Your task to perform on an android device: turn on notifications settings in the gmail app Image 0: 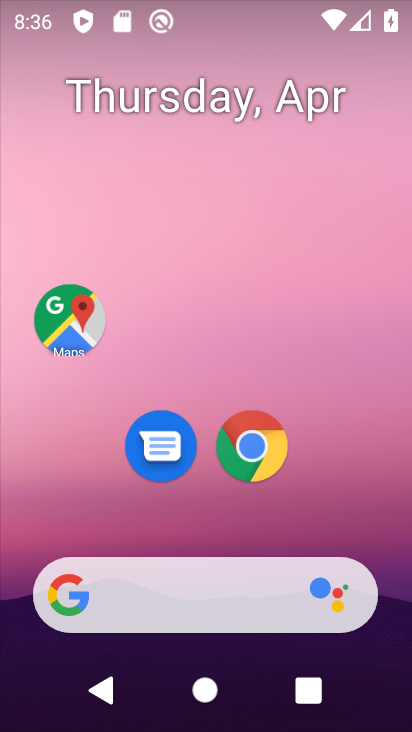
Step 0: drag from (359, 516) to (352, 111)
Your task to perform on an android device: turn on notifications settings in the gmail app Image 1: 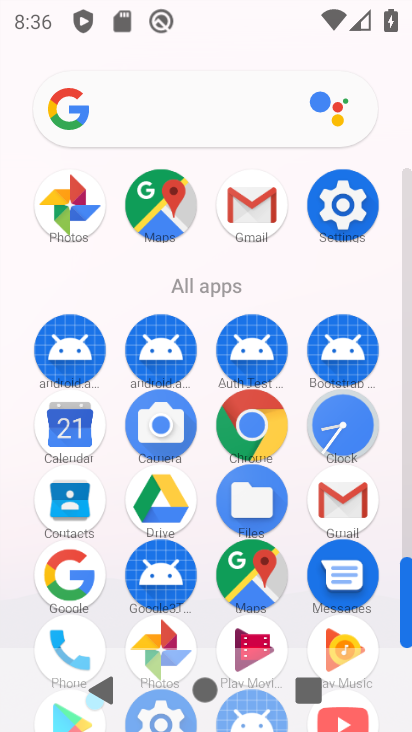
Step 1: click (347, 491)
Your task to perform on an android device: turn on notifications settings in the gmail app Image 2: 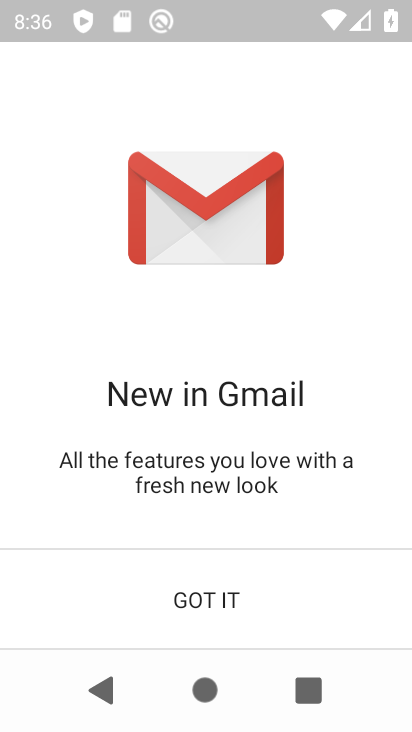
Step 2: click (326, 604)
Your task to perform on an android device: turn on notifications settings in the gmail app Image 3: 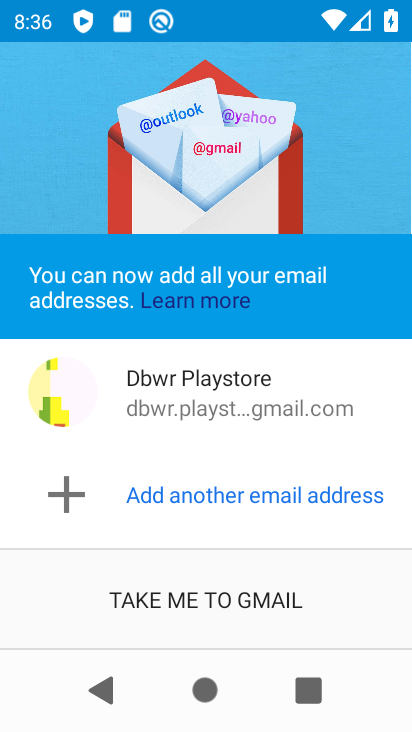
Step 3: click (326, 604)
Your task to perform on an android device: turn on notifications settings in the gmail app Image 4: 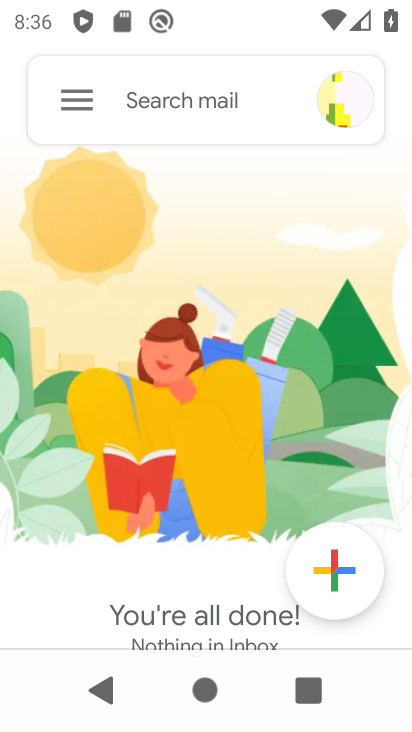
Step 4: click (74, 102)
Your task to perform on an android device: turn on notifications settings in the gmail app Image 5: 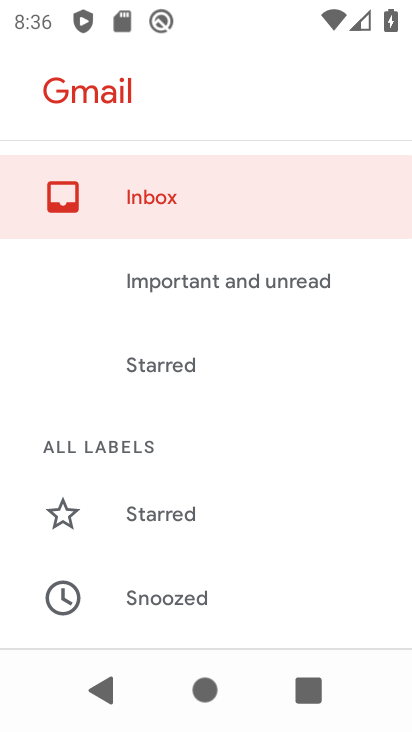
Step 5: drag from (292, 512) to (292, 301)
Your task to perform on an android device: turn on notifications settings in the gmail app Image 6: 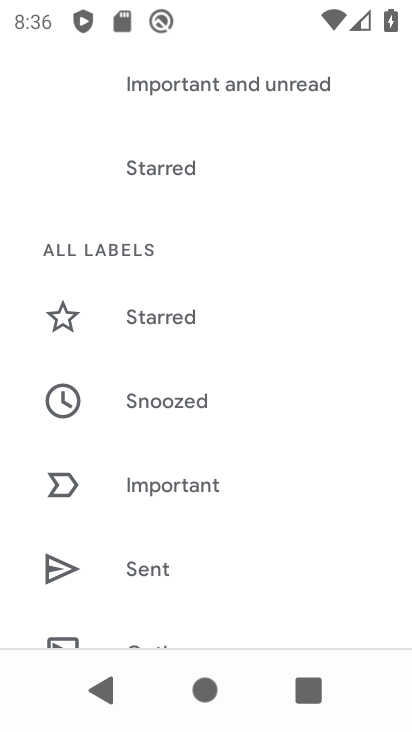
Step 6: drag from (297, 556) to (322, 325)
Your task to perform on an android device: turn on notifications settings in the gmail app Image 7: 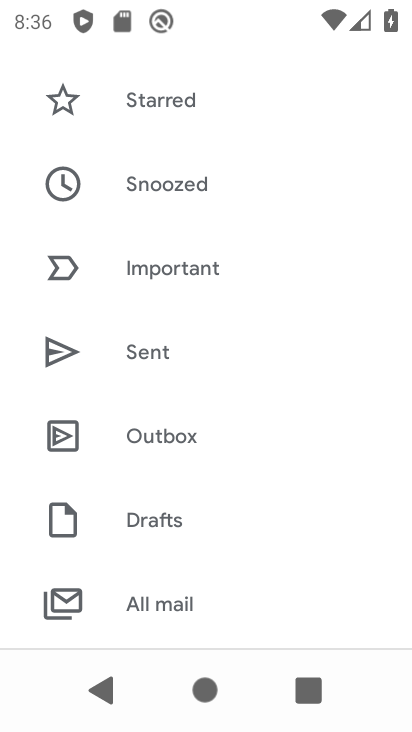
Step 7: drag from (321, 572) to (334, 347)
Your task to perform on an android device: turn on notifications settings in the gmail app Image 8: 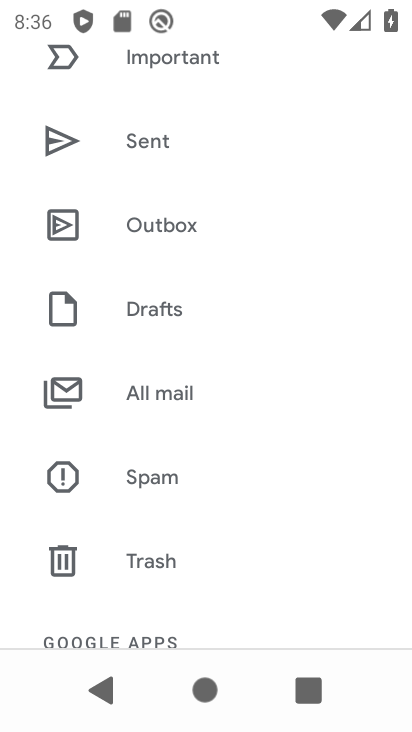
Step 8: drag from (308, 574) to (295, 391)
Your task to perform on an android device: turn on notifications settings in the gmail app Image 9: 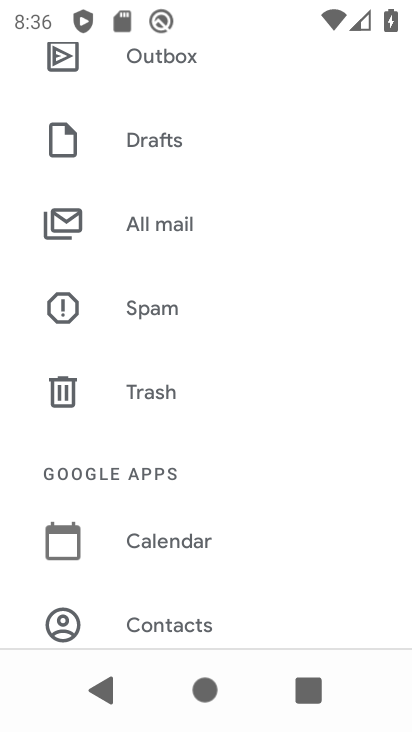
Step 9: drag from (315, 556) to (331, 303)
Your task to perform on an android device: turn on notifications settings in the gmail app Image 10: 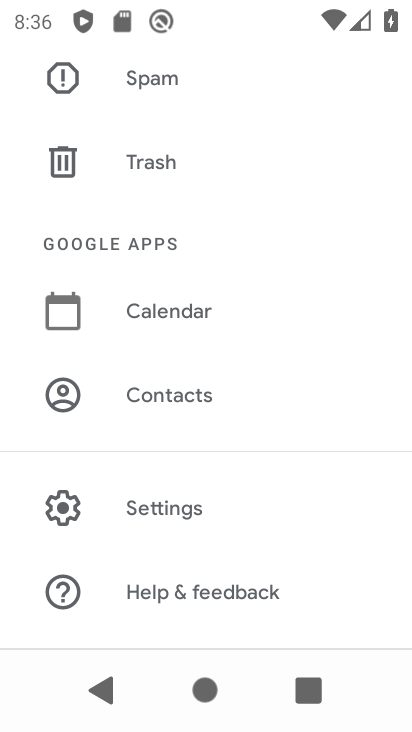
Step 10: drag from (296, 508) to (289, 371)
Your task to perform on an android device: turn on notifications settings in the gmail app Image 11: 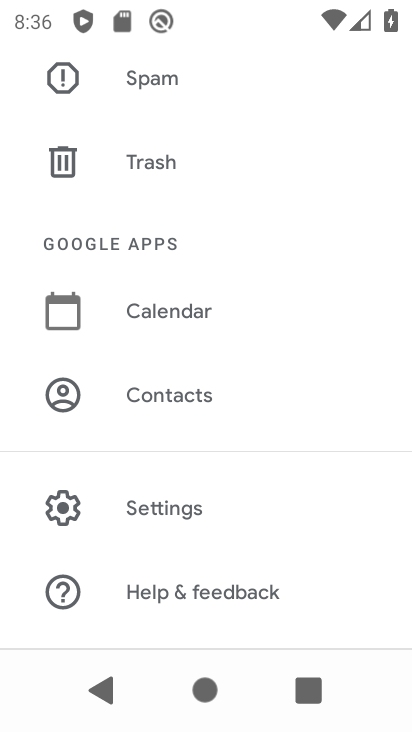
Step 11: click (204, 503)
Your task to perform on an android device: turn on notifications settings in the gmail app Image 12: 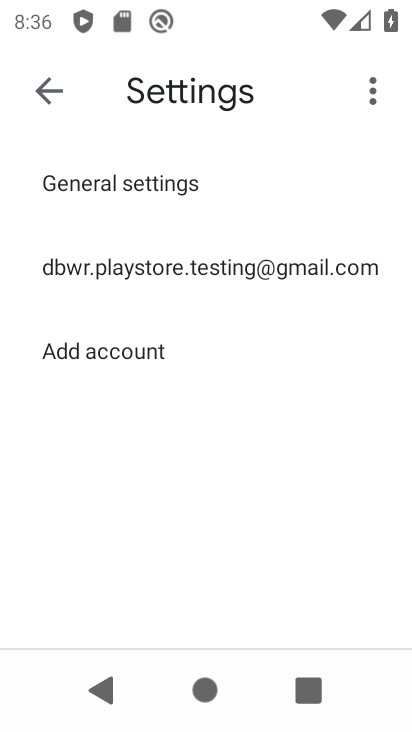
Step 12: click (298, 269)
Your task to perform on an android device: turn on notifications settings in the gmail app Image 13: 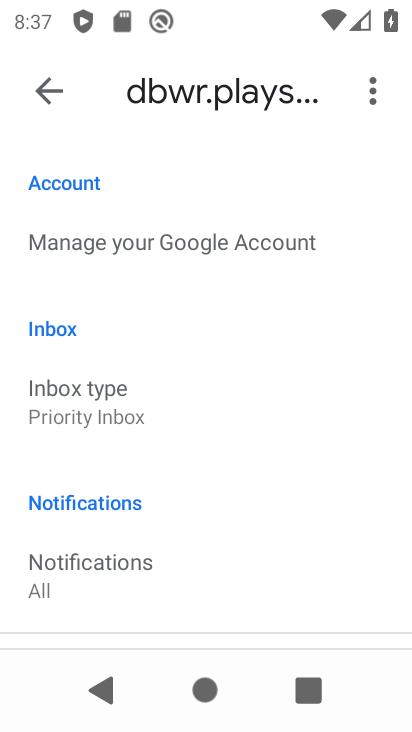
Step 13: drag from (317, 548) to (311, 400)
Your task to perform on an android device: turn on notifications settings in the gmail app Image 14: 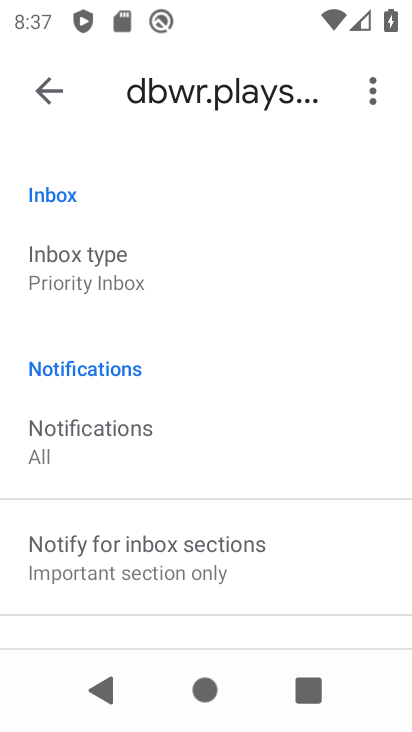
Step 14: drag from (321, 587) to (320, 393)
Your task to perform on an android device: turn on notifications settings in the gmail app Image 15: 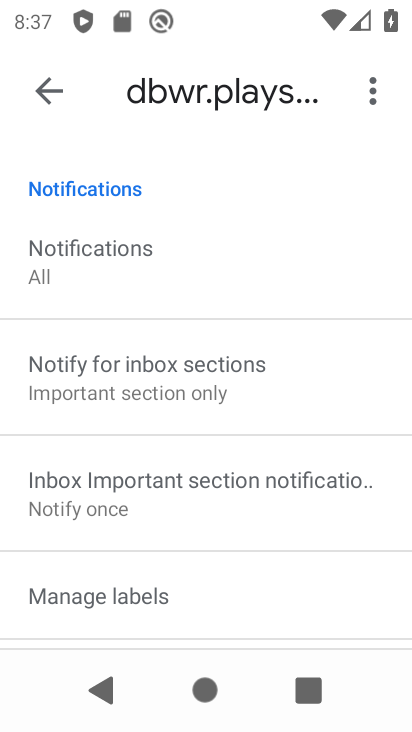
Step 15: drag from (311, 589) to (310, 382)
Your task to perform on an android device: turn on notifications settings in the gmail app Image 16: 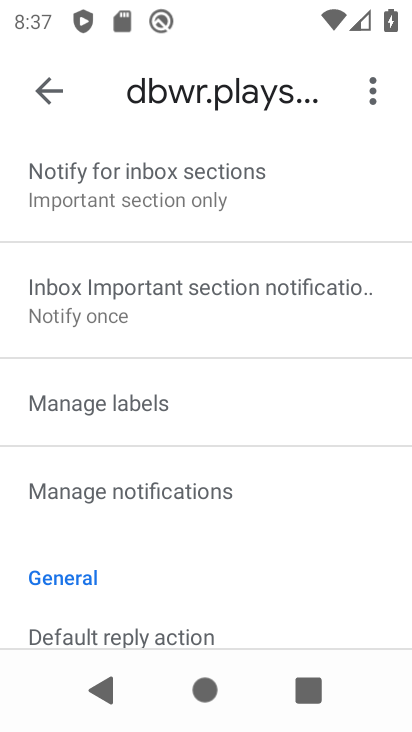
Step 16: drag from (304, 552) to (300, 416)
Your task to perform on an android device: turn on notifications settings in the gmail app Image 17: 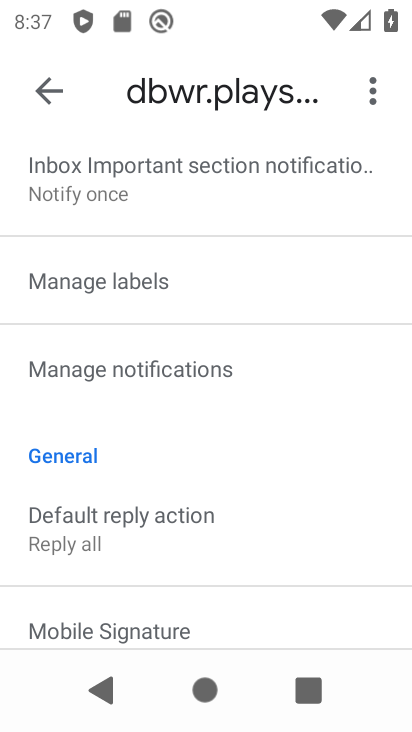
Step 17: drag from (317, 596) to (327, 452)
Your task to perform on an android device: turn on notifications settings in the gmail app Image 18: 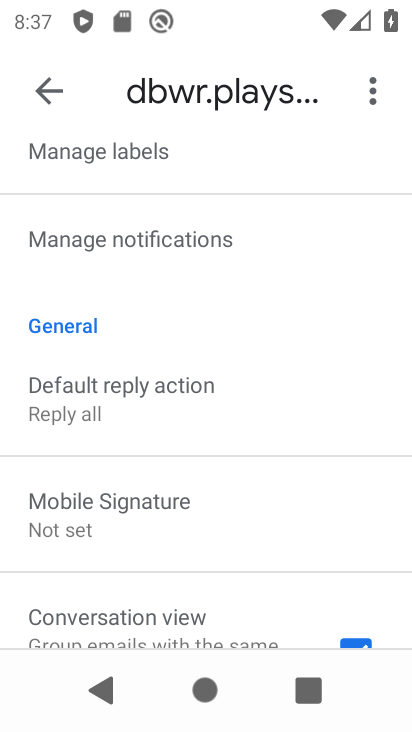
Step 18: drag from (316, 573) to (310, 374)
Your task to perform on an android device: turn on notifications settings in the gmail app Image 19: 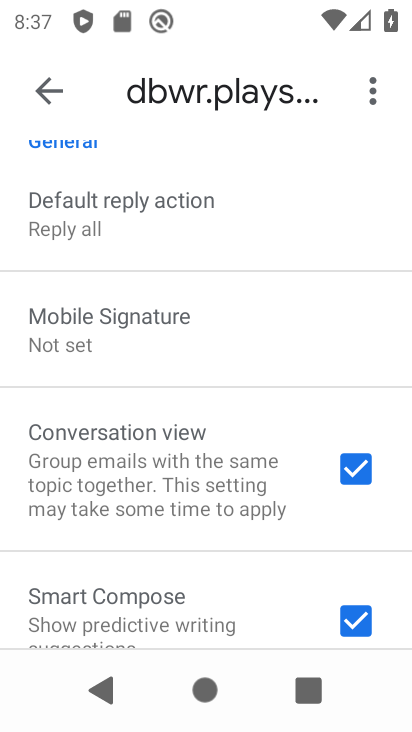
Step 19: drag from (281, 598) to (295, 390)
Your task to perform on an android device: turn on notifications settings in the gmail app Image 20: 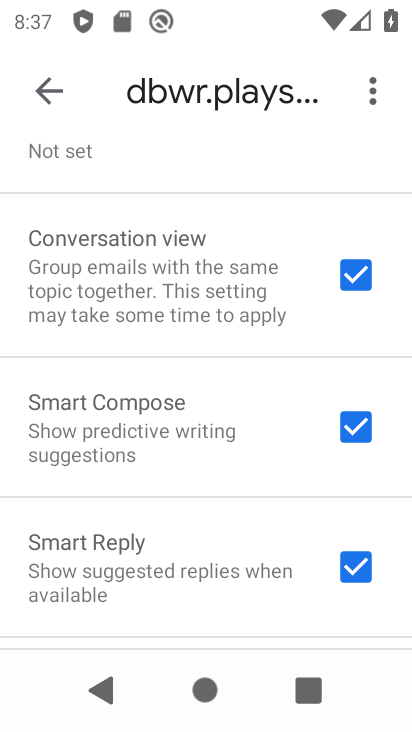
Step 20: drag from (281, 590) to (282, 442)
Your task to perform on an android device: turn on notifications settings in the gmail app Image 21: 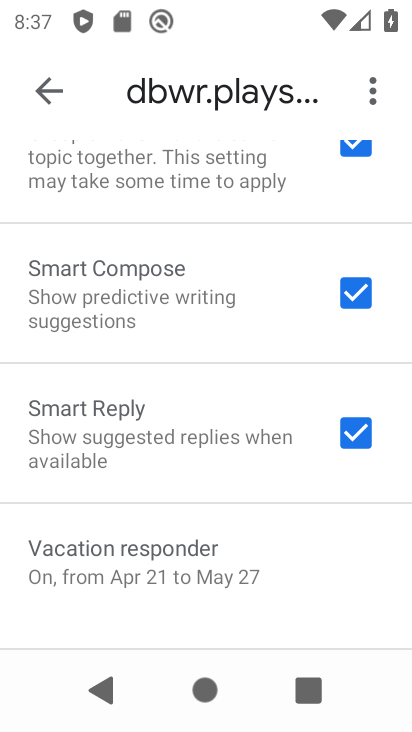
Step 21: drag from (313, 549) to (308, 417)
Your task to perform on an android device: turn on notifications settings in the gmail app Image 22: 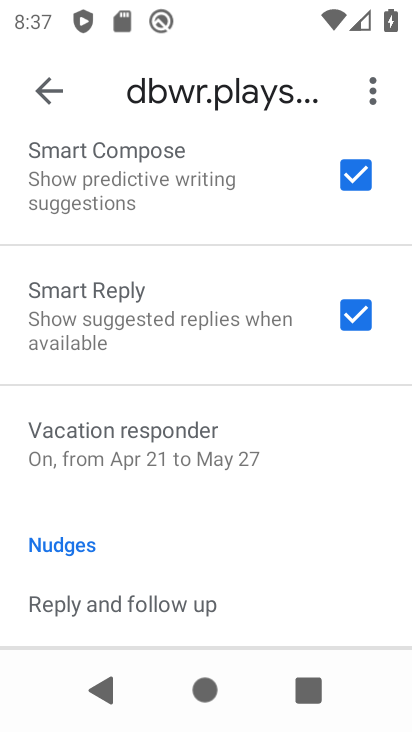
Step 22: drag from (338, 575) to (340, 361)
Your task to perform on an android device: turn on notifications settings in the gmail app Image 23: 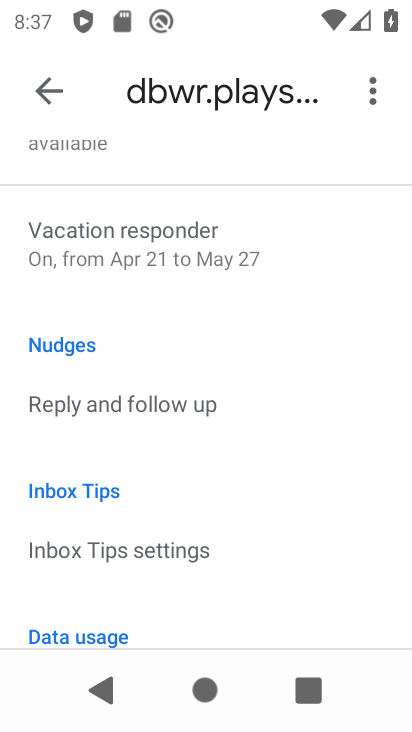
Step 23: drag from (305, 572) to (309, 405)
Your task to perform on an android device: turn on notifications settings in the gmail app Image 24: 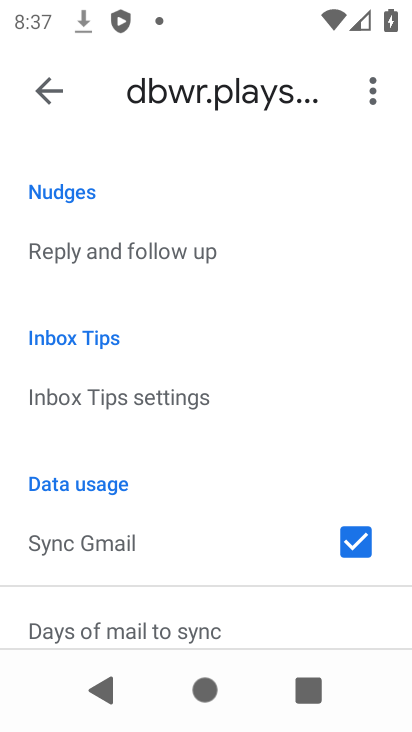
Step 24: drag from (293, 298) to (277, 504)
Your task to perform on an android device: turn on notifications settings in the gmail app Image 25: 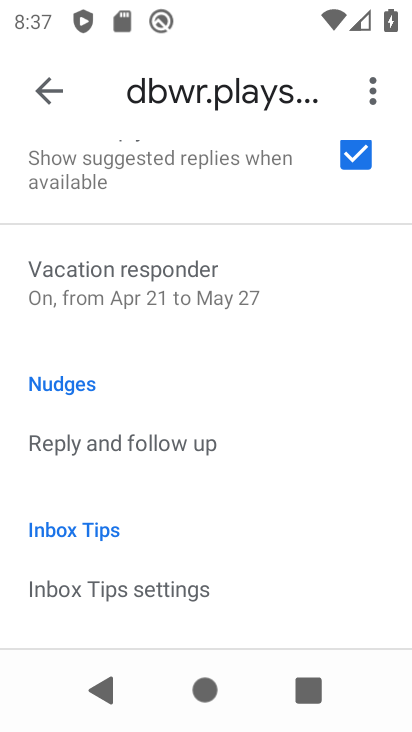
Step 25: drag from (276, 301) to (281, 476)
Your task to perform on an android device: turn on notifications settings in the gmail app Image 26: 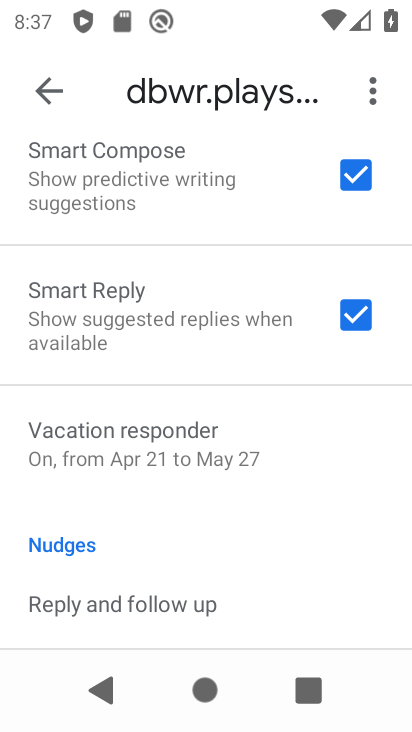
Step 26: drag from (294, 348) to (287, 450)
Your task to perform on an android device: turn on notifications settings in the gmail app Image 27: 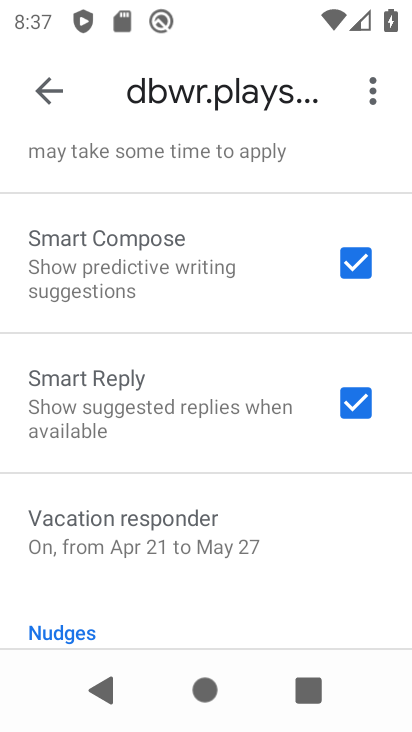
Step 27: drag from (282, 263) to (286, 455)
Your task to perform on an android device: turn on notifications settings in the gmail app Image 28: 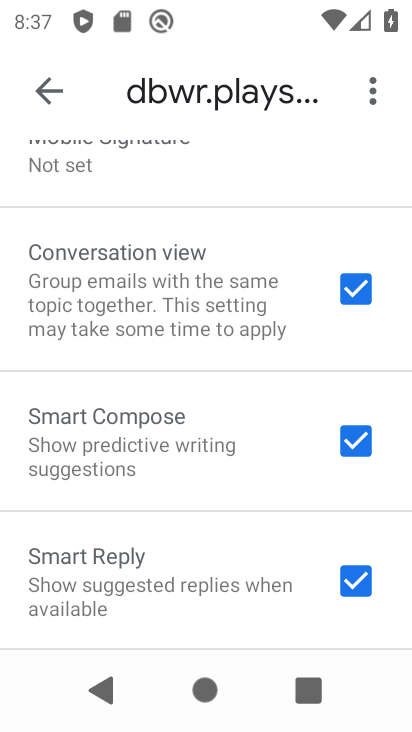
Step 28: drag from (276, 236) to (280, 402)
Your task to perform on an android device: turn on notifications settings in the gmail app Image 29: 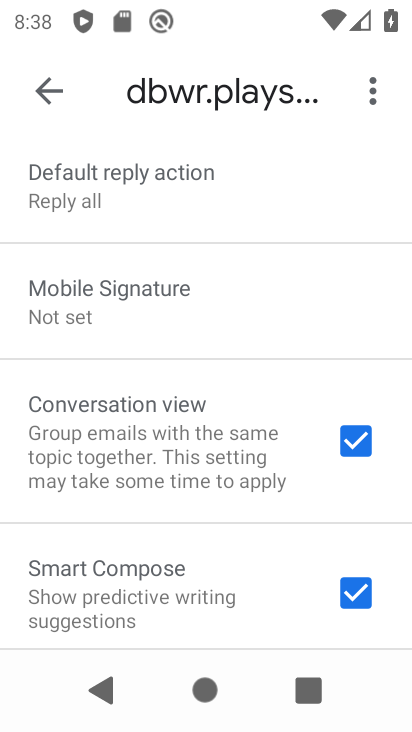
Step 29: drag from (297, 215) to (288, 444)
Your task to perform on an android device: turn on notifications settings in the gmail app Image 30: 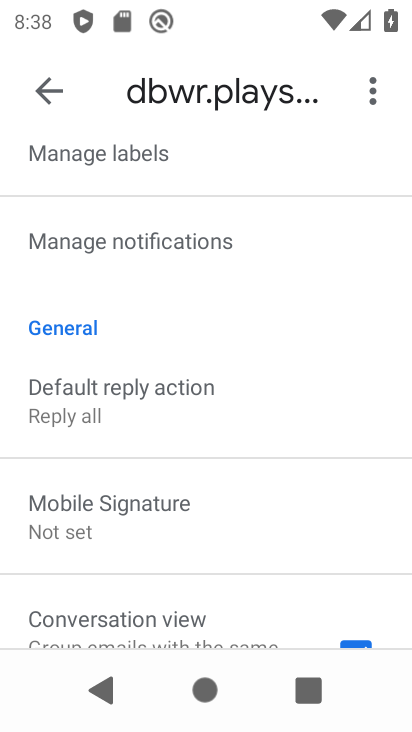
Step 30: drag from (291, 234) to (277, 406)
Your task to perform on an android device: turn on notifications settings in the gmail app Image 31: 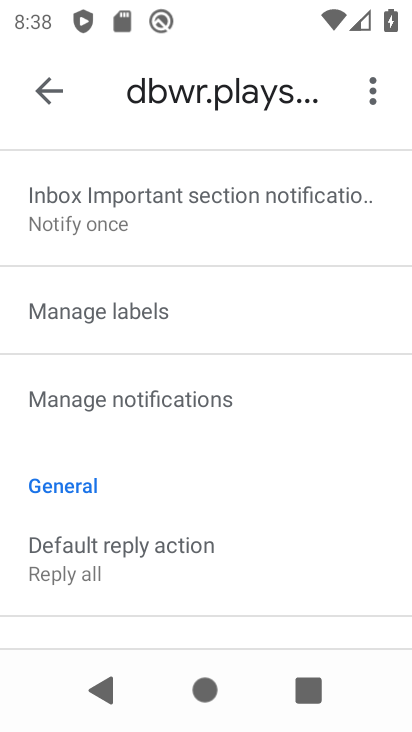
Step 31: click (217, 401)
Your task to perform on an android device: turn on notifications settings in the gmail app Image 32: 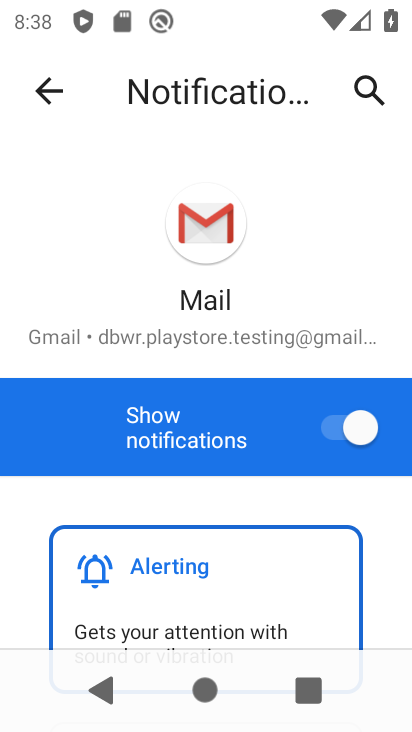
Step 32: task complete